Your task to perform on an android device: delete browsing data in the chrome app Image 0: 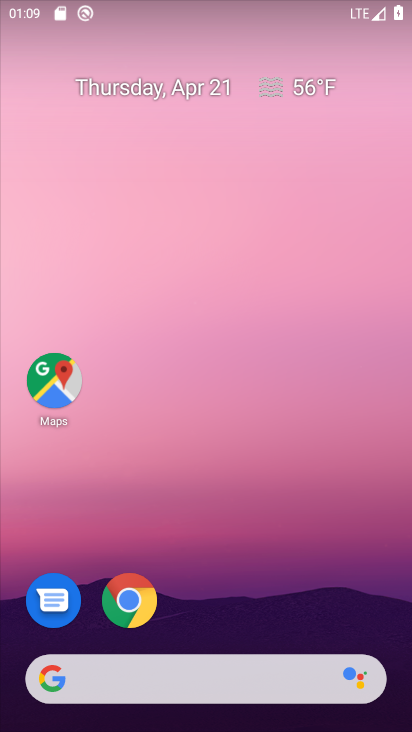
Step 0: click (140, 583)
Your task to perform on an android device: delete browsing data in the chrome app Image 1: 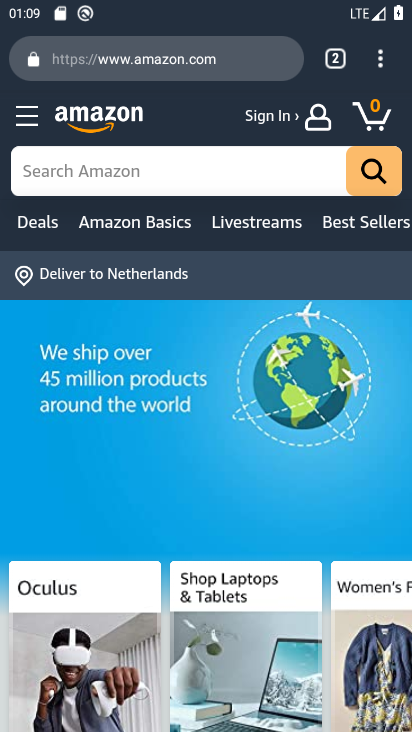
Step 1: click (385, 54)
Your task to perform on an android device: delete browsing data in the chrome app Image 2: 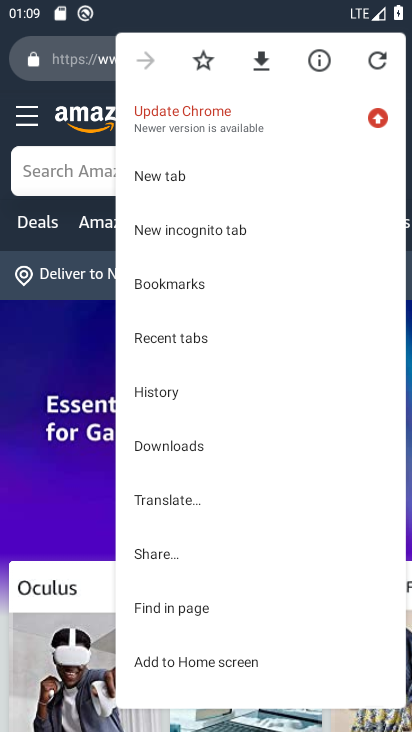
Step 2: click (173, 391)
Your task to perform on an android device: delete browsing data in the chrome app Image 3: 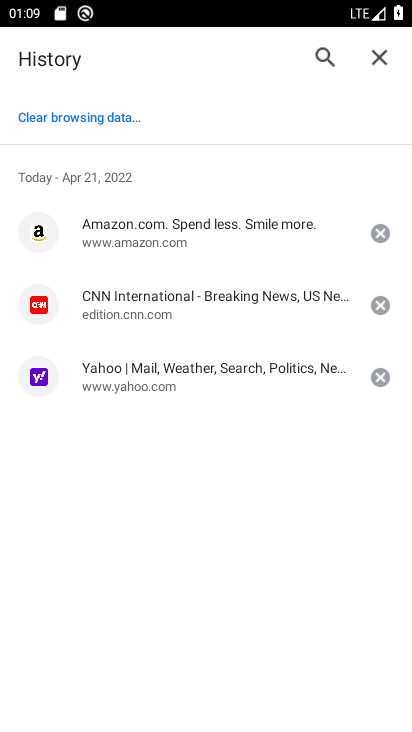
Step 3: click (115, 112)
Your task to perform on an android device: delete browsing data in the chrome app Image 4: 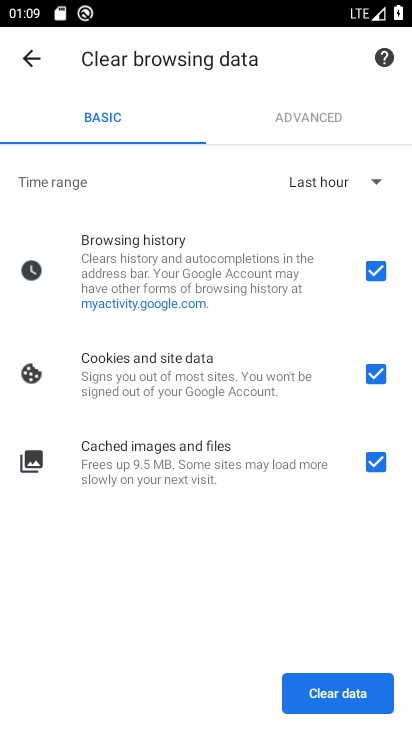
Step 4: click (333, 688)
Your task to perform on an android device: delete browsing data in the chrome app Image 5: 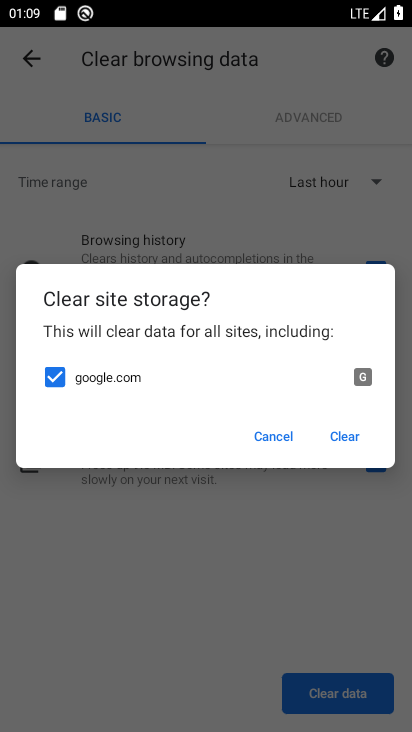
Step 5: click (347, 431)
Your task to perform on an android device: delete browsing data in the chrome app Image 6: 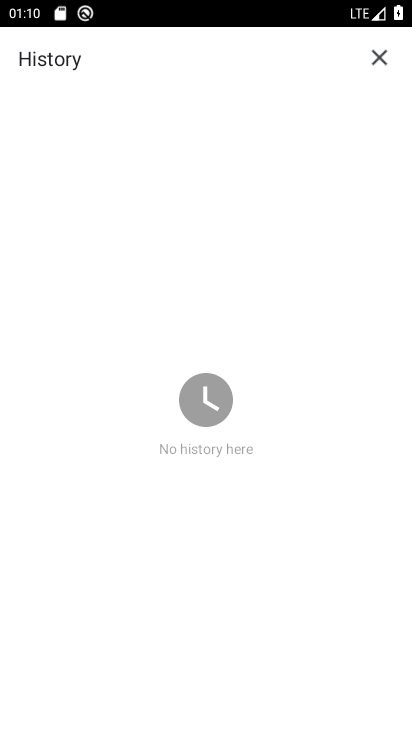
Step 6: task complete